Your task to perform on an android device: allow cookies in the chrome app Image 0: 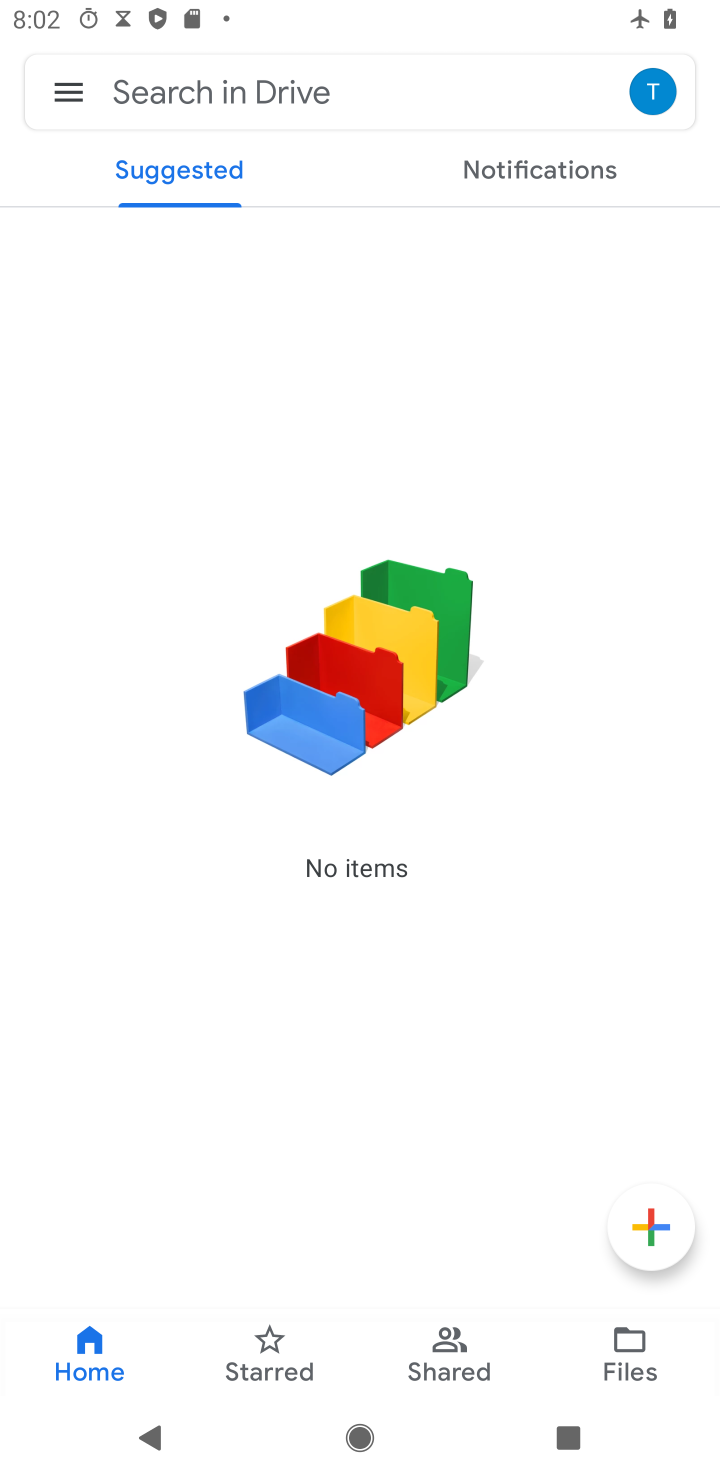
Step 0: press home button
Your task to perform on an android device: allow cookies in the chrome app Image 1: 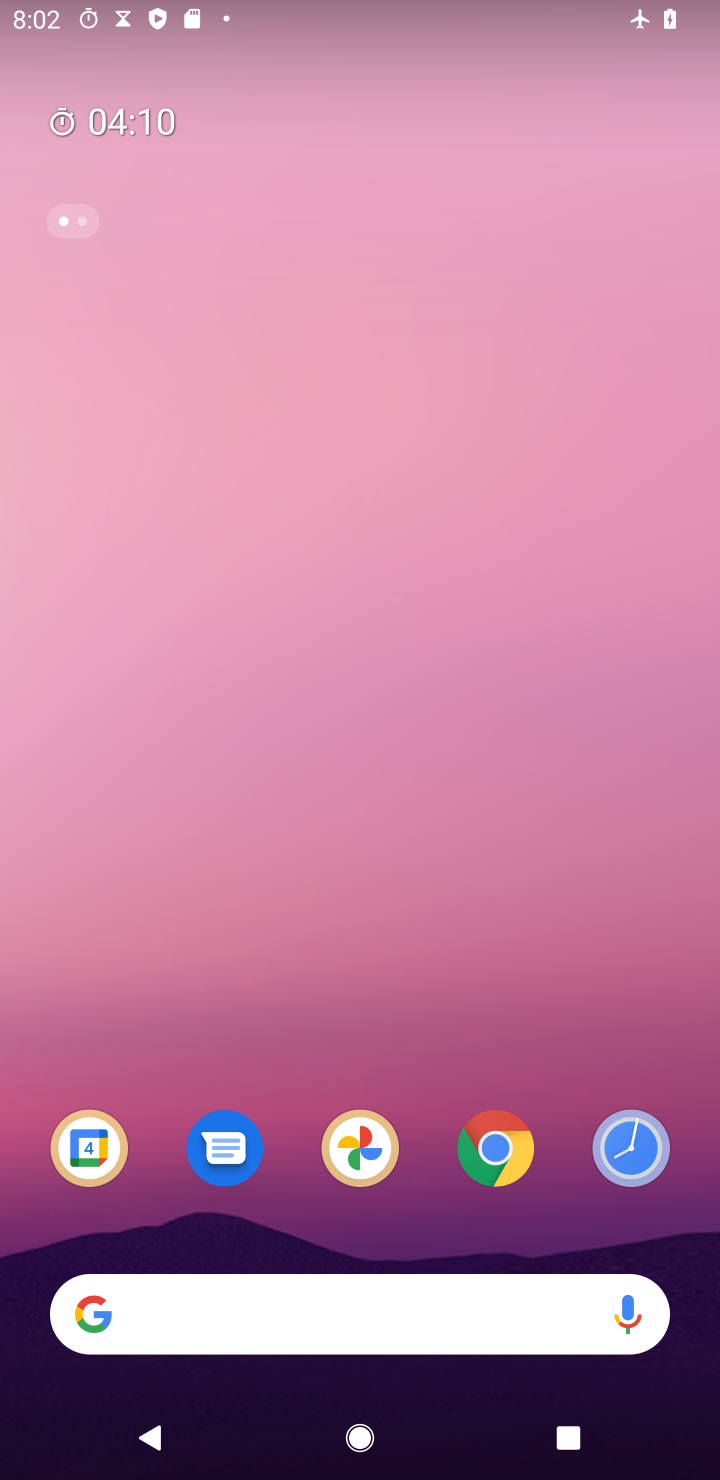
Step 1: click (503, 1168)
Your task to perform on an android device: allow cookies in the chrome app Image 2: 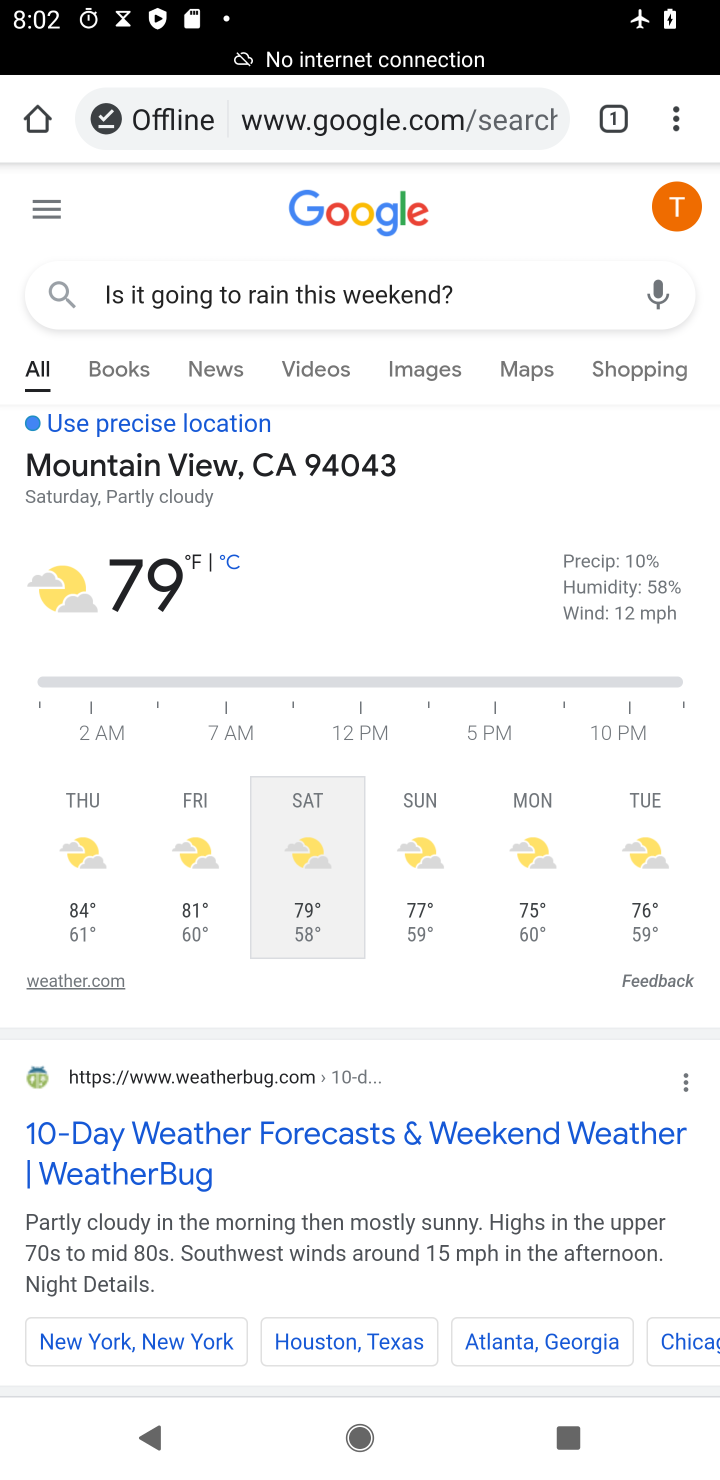
Step 2: click (683, 122)
Your task to perform on an android device: allow cookies in the chrome app Image 3: 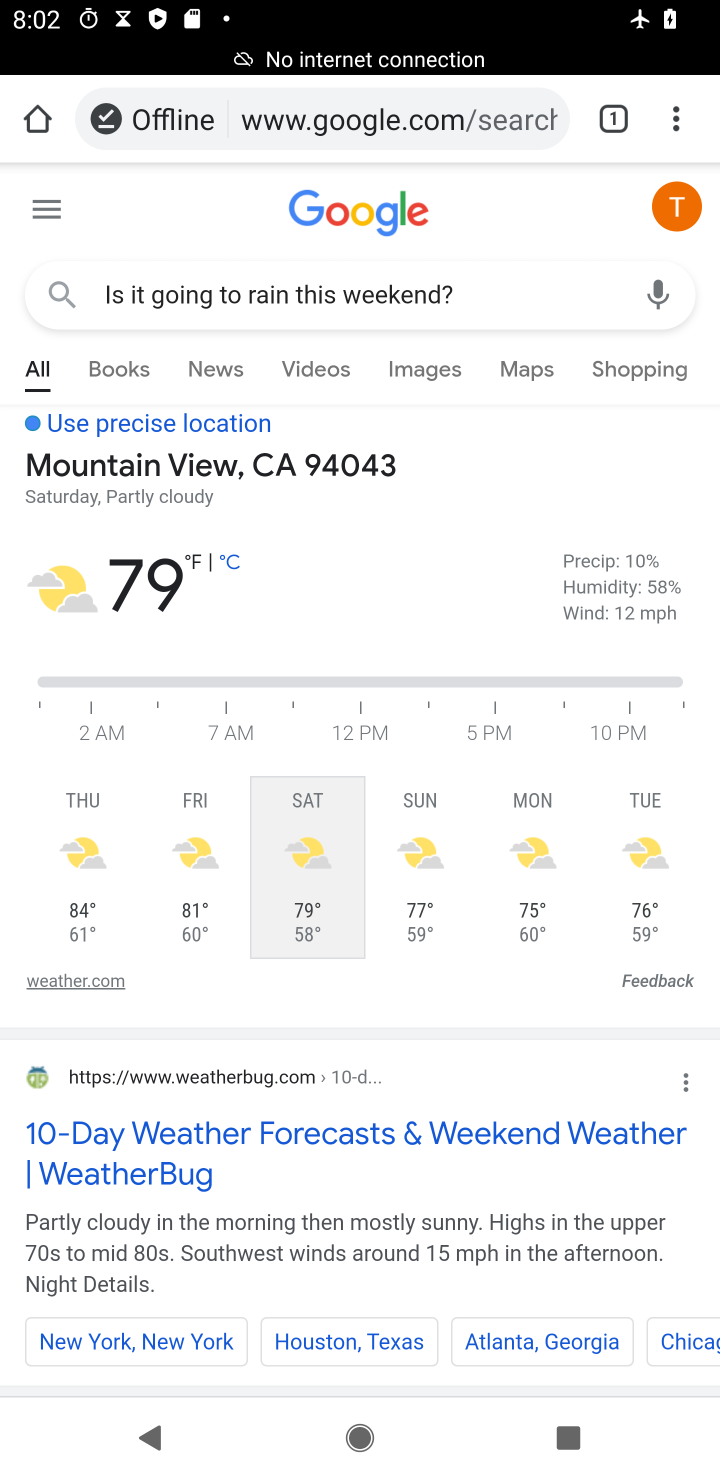
Step 3: click (677, 131)
Your task to perform on an android device: allow cookies in the chrome app Image 4: 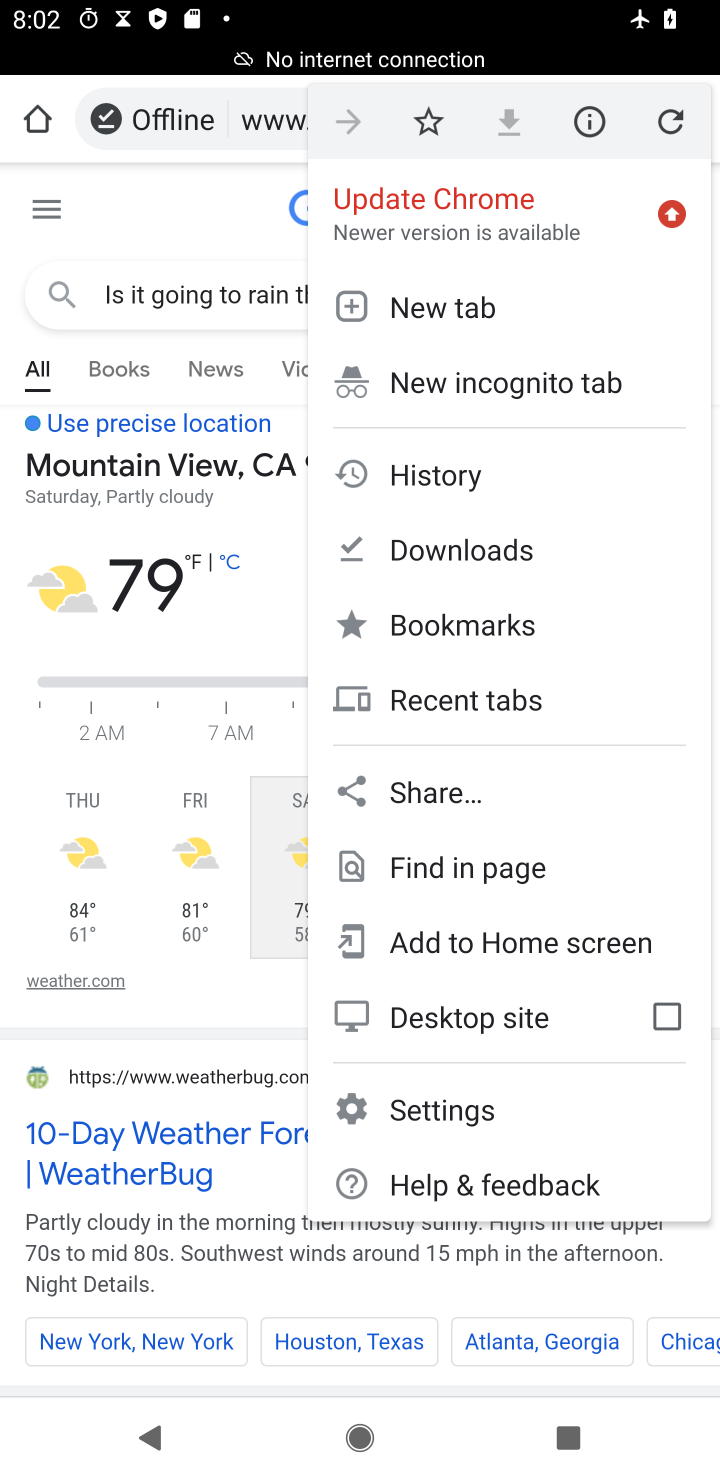
Step 4: click (457, 1113)
Your task to perform on an android device: allow cookies in the chrome app Image 5: 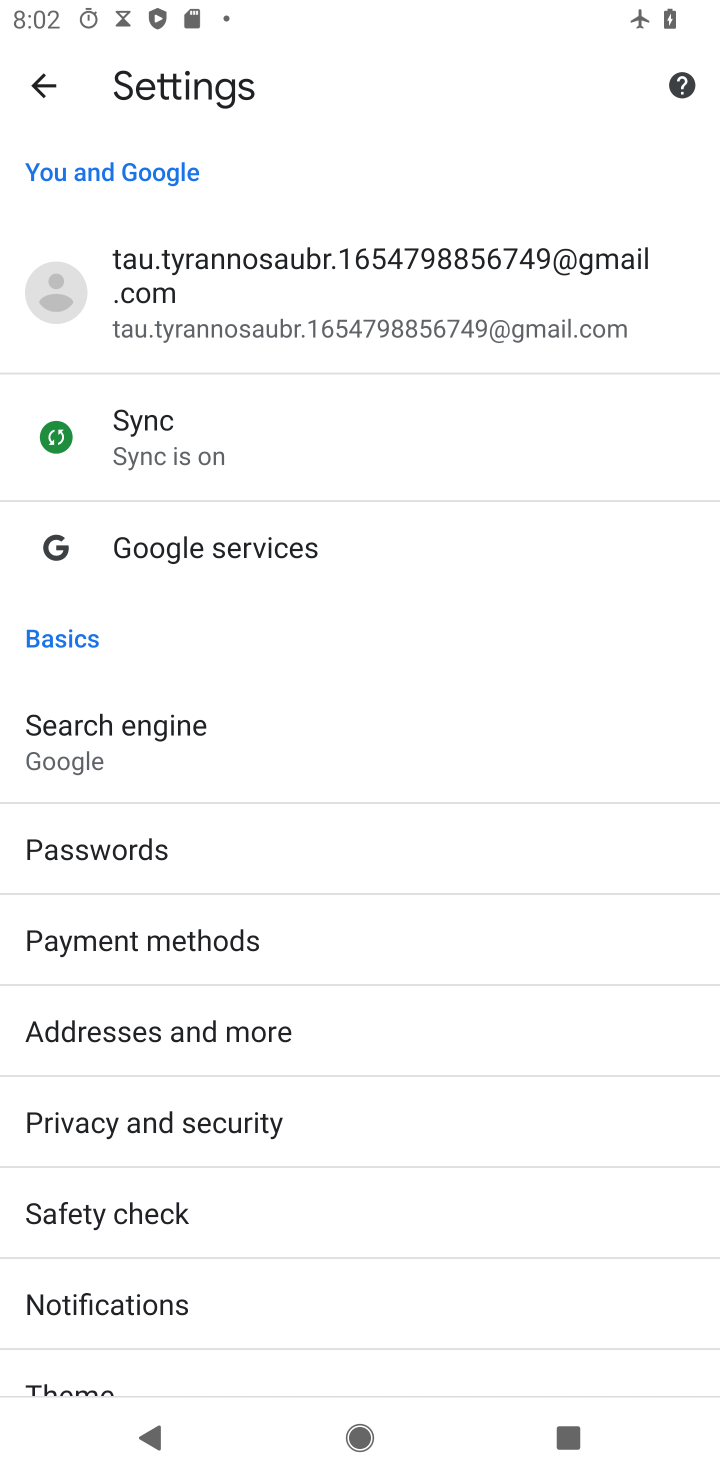
Step 5: drag from (355, 1284) to (241, 307)
Your task to perform on an android device: allow cookies in the chrome app Image 6: 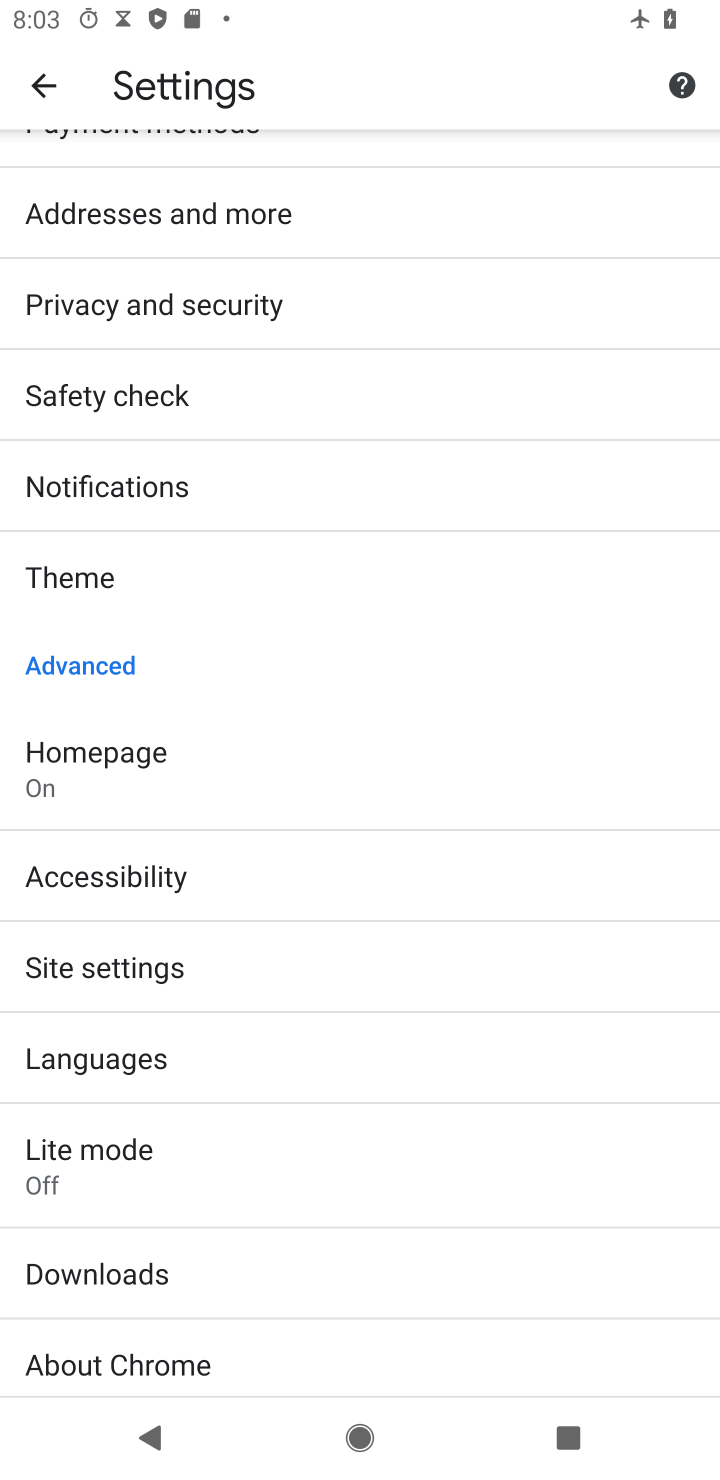
Step 6: click (222, 990)
Your task to perform on an android device: allow cookies in the chrome app Image 7: 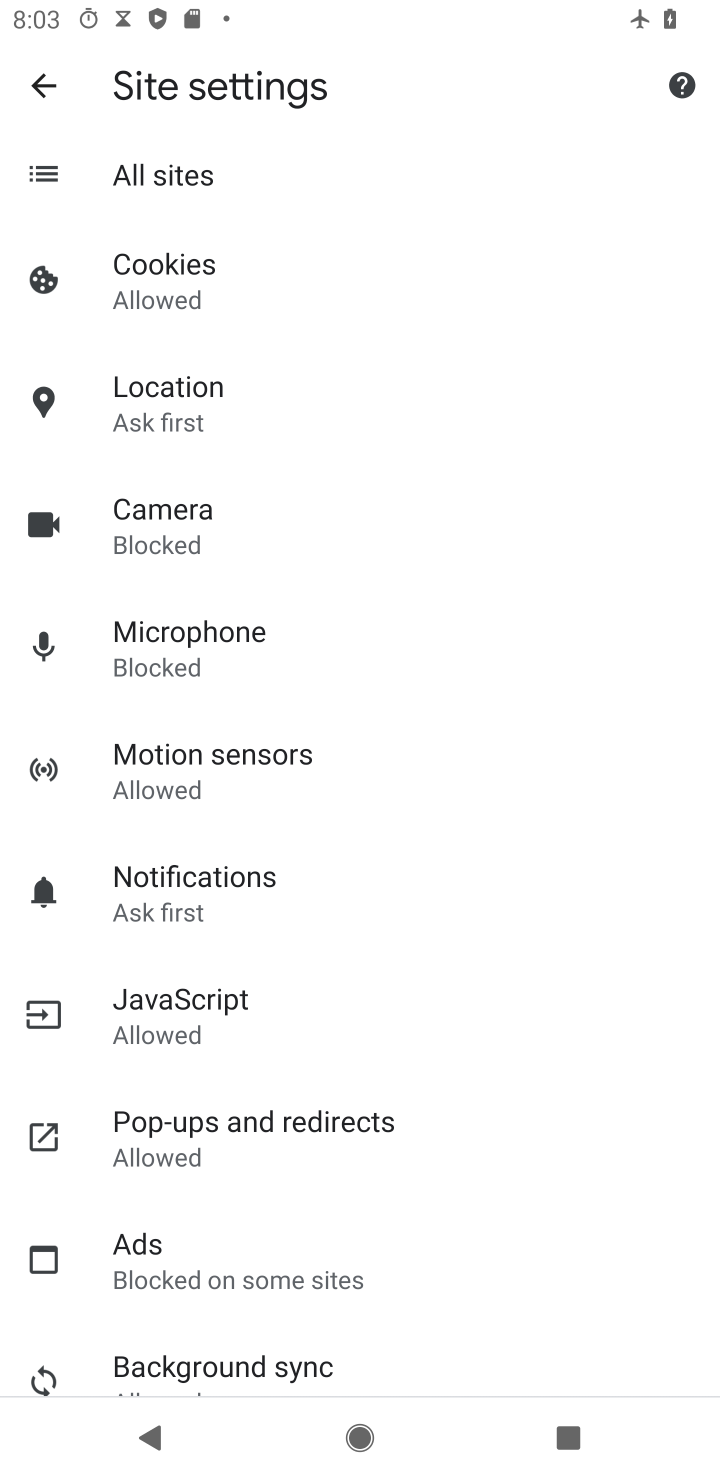
Step 7: click (283, 290)
Your task to perform on an android device: allow cookies in the chrome app Image 8: 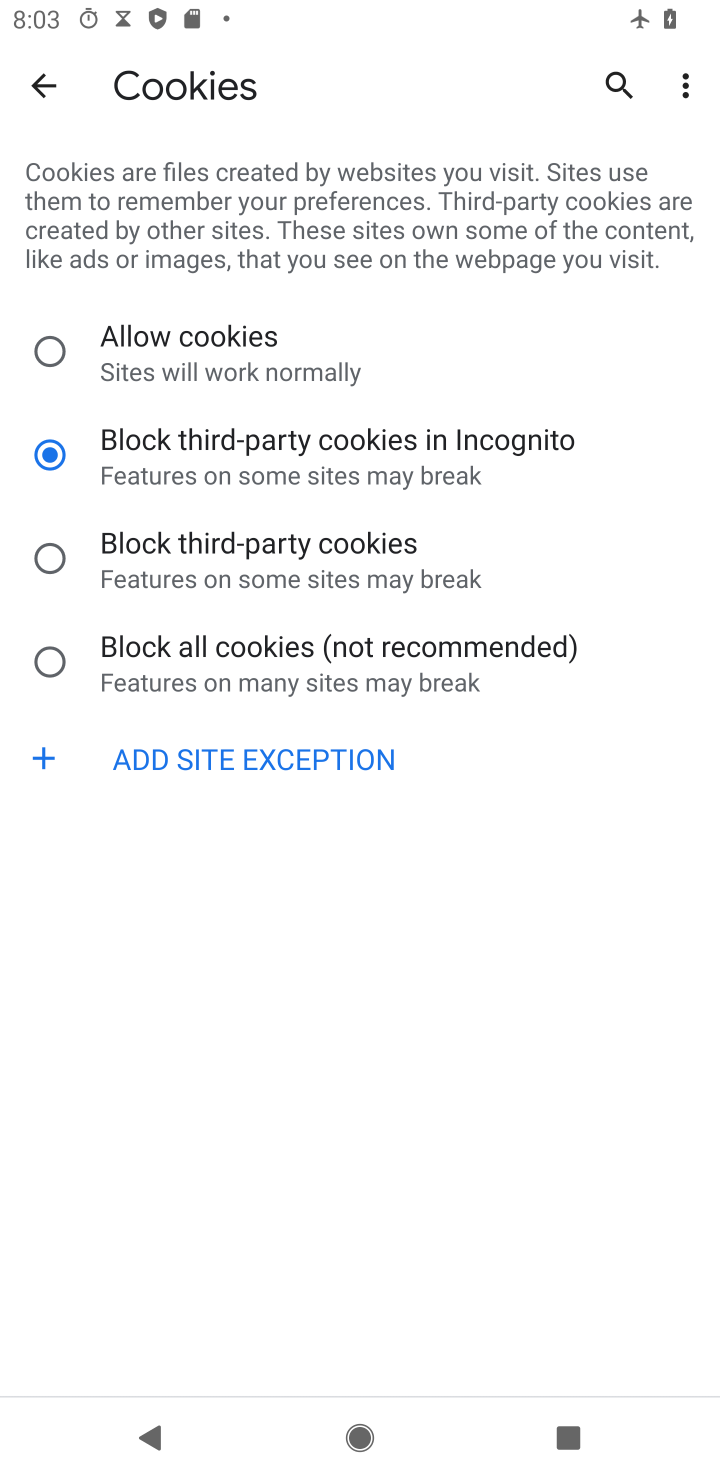
Step 8: click (294, 329)
Your task to perform on an android device: allow cookies in the chrome app Image 9: 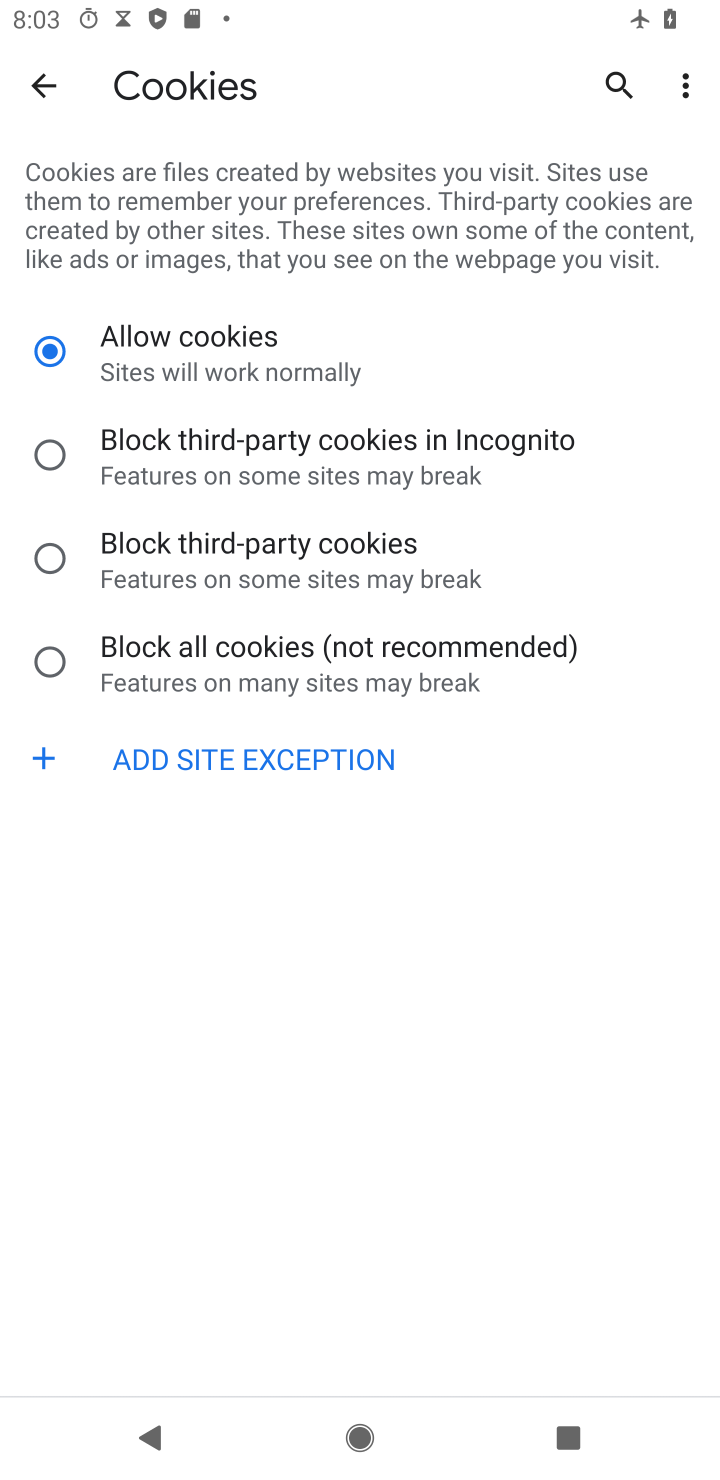
Step 9: task complete